Your task to perform on an android device: Search for Italian restaurants on Maps Image 0: 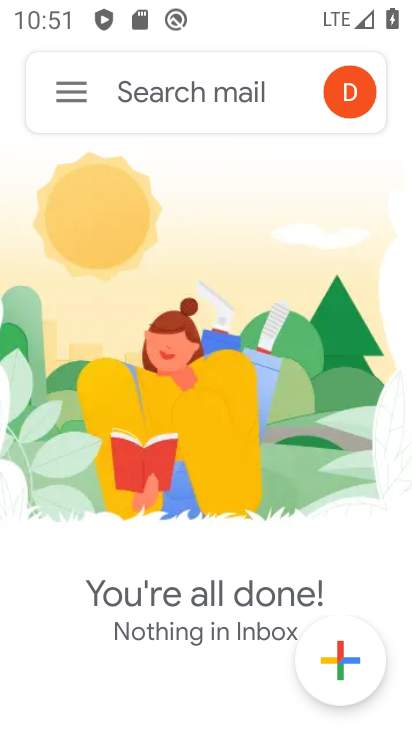
Step 0: press home button
Your task to perform on an android device: Search for Italian restaurants on Maps Image 1: 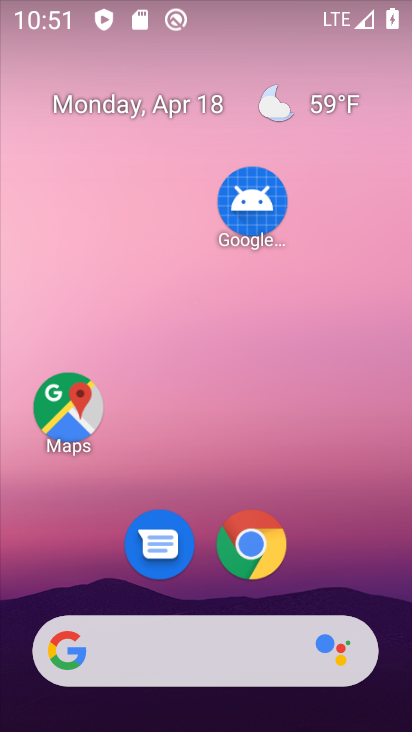
Step 1: drag from (245, 484) to (230, 154)
Your task to perform on an android device: Search for Italian restaurants on Maps Image 2: 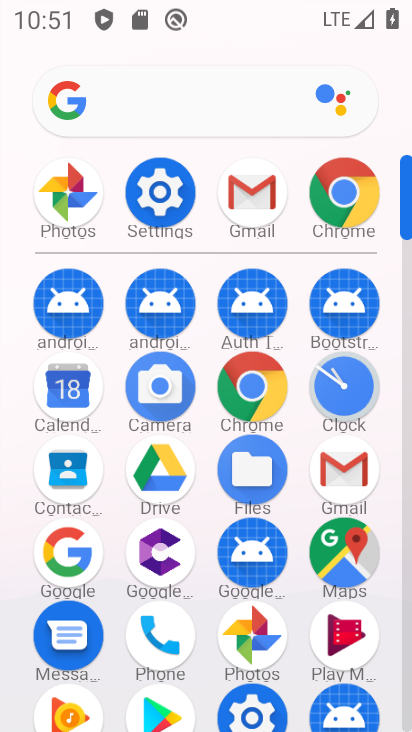
Step 2: click (344, 558)
Your task to perform on an android device: Search for Italian restaurants on Maps Image 3: 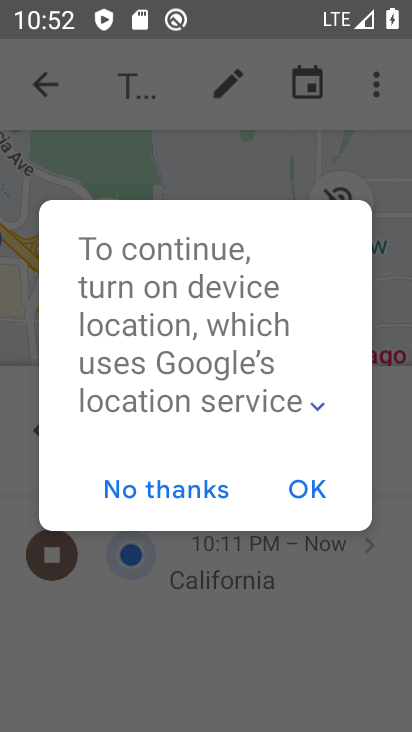
Step 3: click (188, 494)
Your task to perform on an android device: Search for Italian restaurants on Maps Image 4: 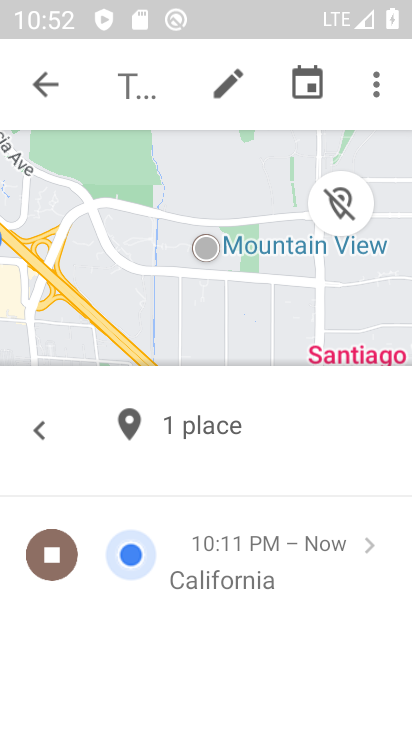
Step 4: click (60, 82)
Your task to perform on an android device: Search for Italian restaurants on Maps Image 5: 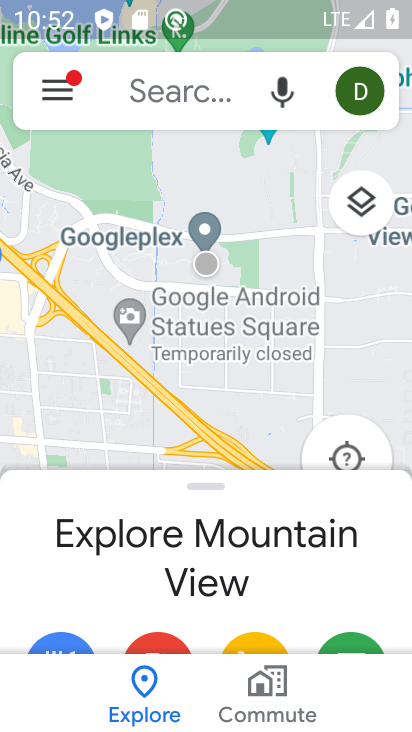
Step 5: type "Italian restaurants "
Your task to perform on an android device: Search for Italian restaurants on Maps Image 6: 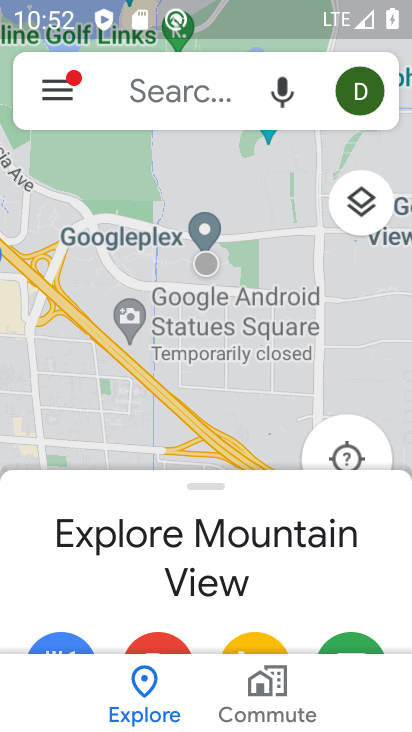
Step 6: click (191, 77)
Your task to perform on an android device: Search for Italian restaurants on Maps Image 7: 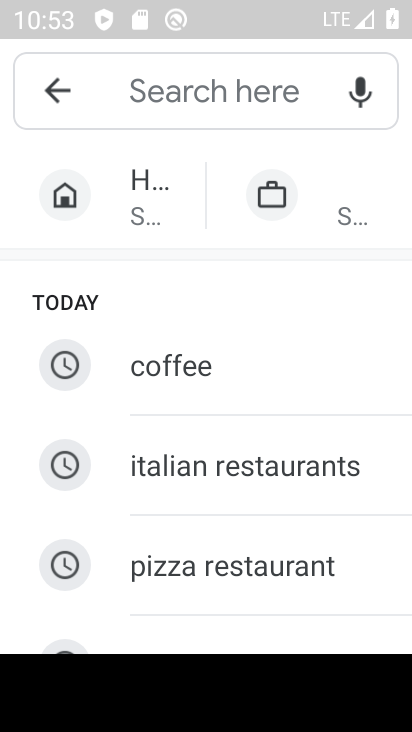
Step 7: type "Italian restaurants "
Your task to perform on an android device: Search for Italian restaurants on Maps Image 8: 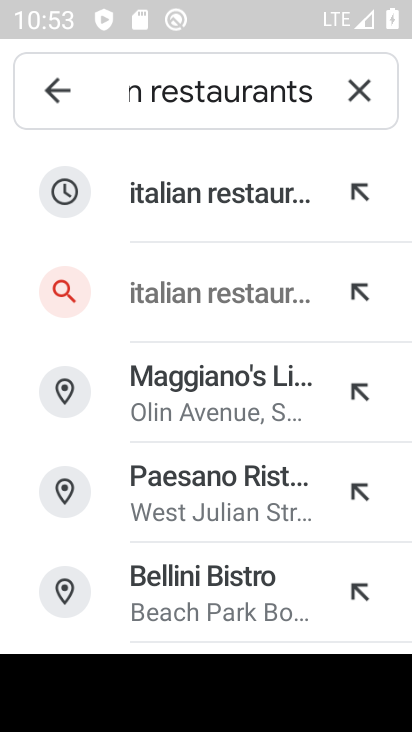
Step 8: click (210, 207)
Your task to perform on an android device: Search for Italian restaurants on Maps Image 9: 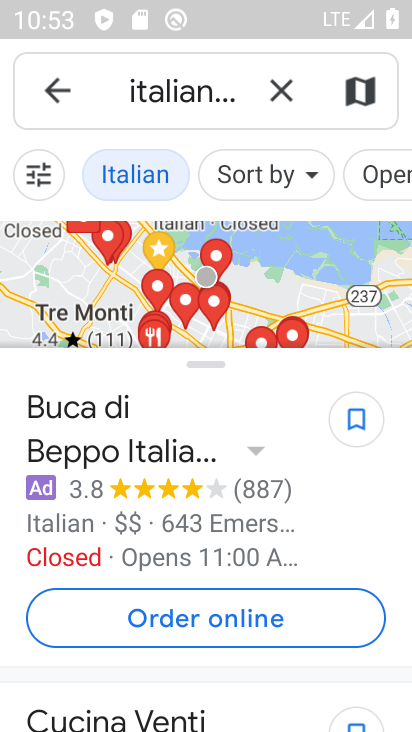
Step 9: click (126, 479)
Your task to perform on an android device: Search for Italian restaurants on Maps Image 10: 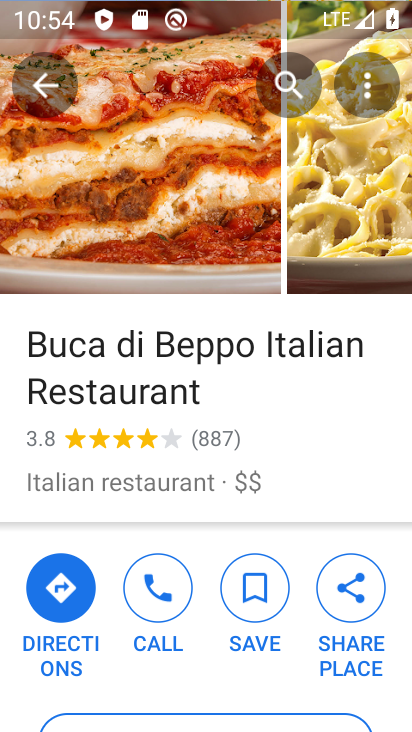
Step 10: task complete